Your task to perform on an android device: Open display settings Image 0: 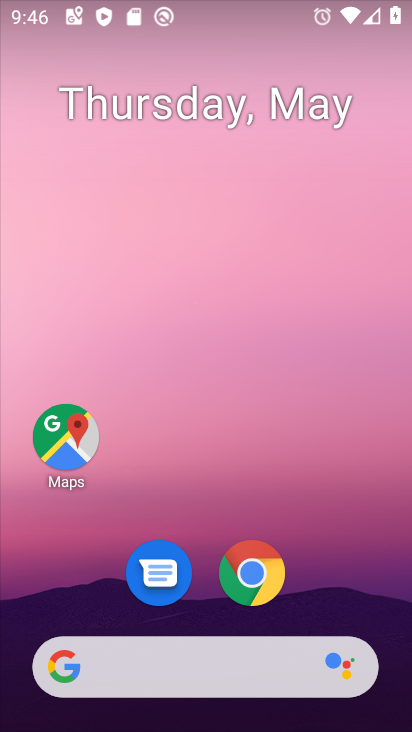
Step 0: drag from (201, 619) to (201, 188)
Your task to perform on an android device: Open display settings Image 1: 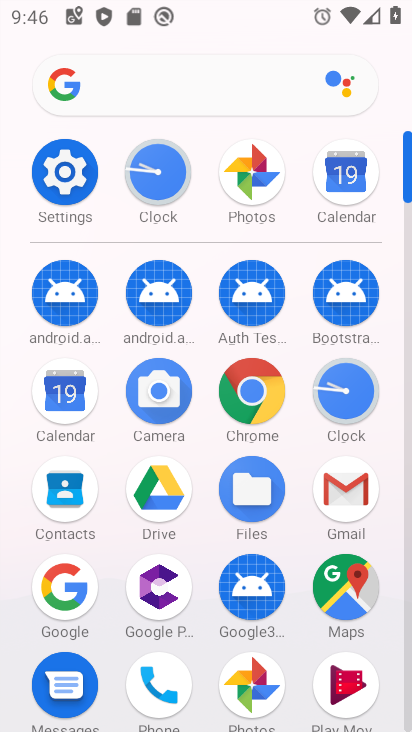
Step 1: click (54, 170)
Your task to perform on an android device: Open display settings Image 2: 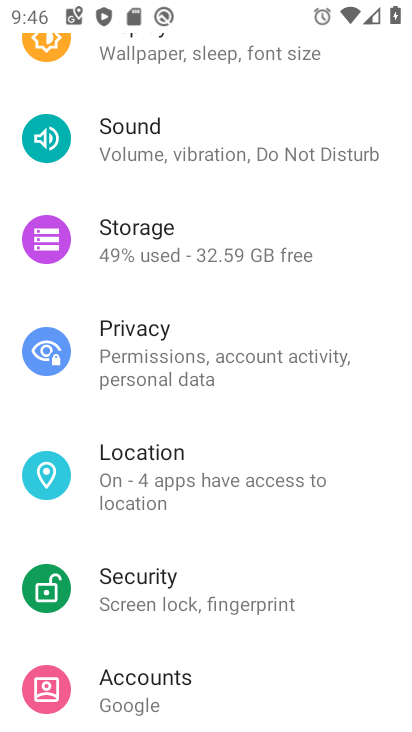
Step 2: drag from (239, 278) to (267, 468)
Your task to perform on an android device: Open display settings Image 3: 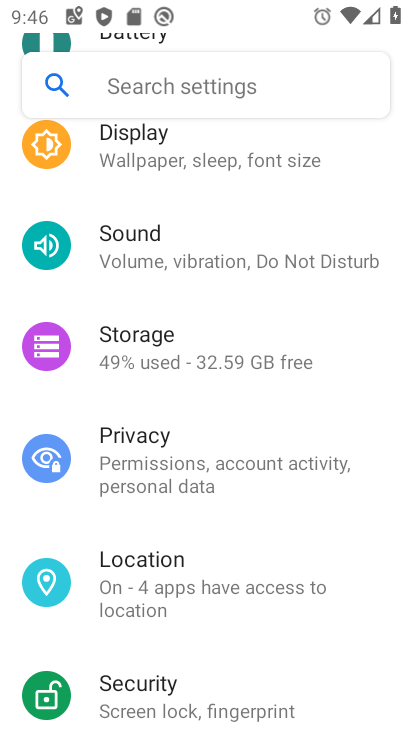
Step 3: click (181, 151)
Your task to perform on an android device: Open display settings Image 4: 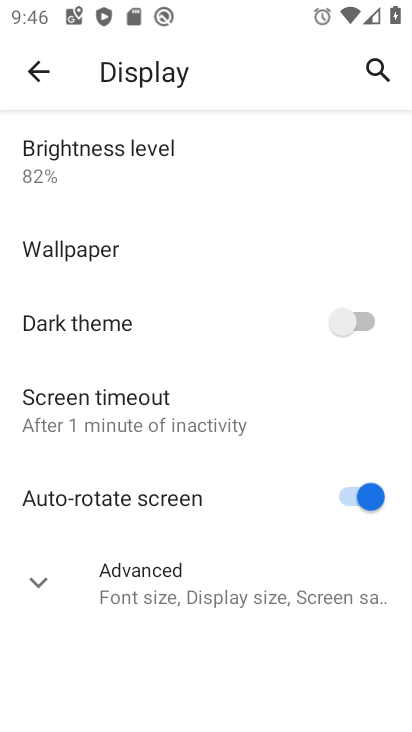
Step 4: task complete